Your task to perform on an android device: open app "Mercado Libre" (install if not already installed) Image 0: 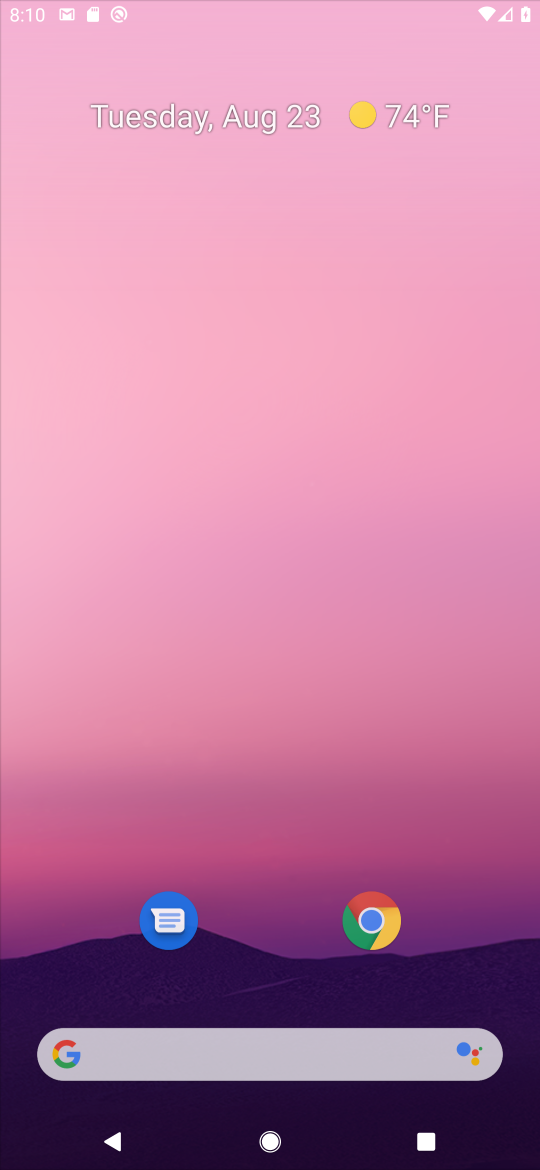
Step 0: drag from (303, 43) to (391, 6)
Your task to perform on an android device: open app "Mercado Libre" (install if not already installed) Image 1: 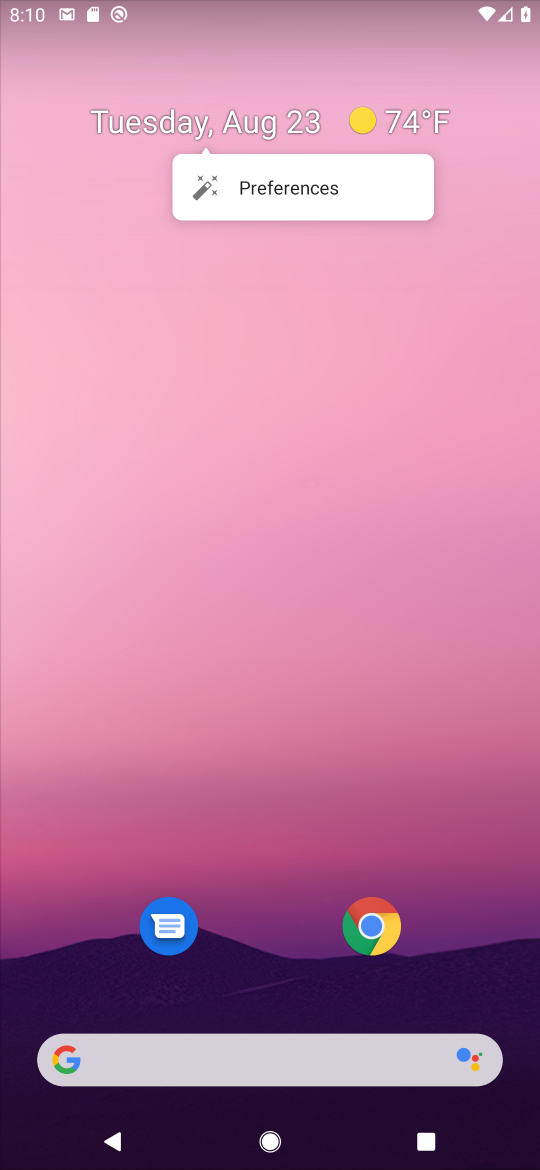
Step 1: drag from (257, 953) to (397, 10)
Your task to perform on an android device: open app "Mercado Libre" (install if not already installed) Image 2: 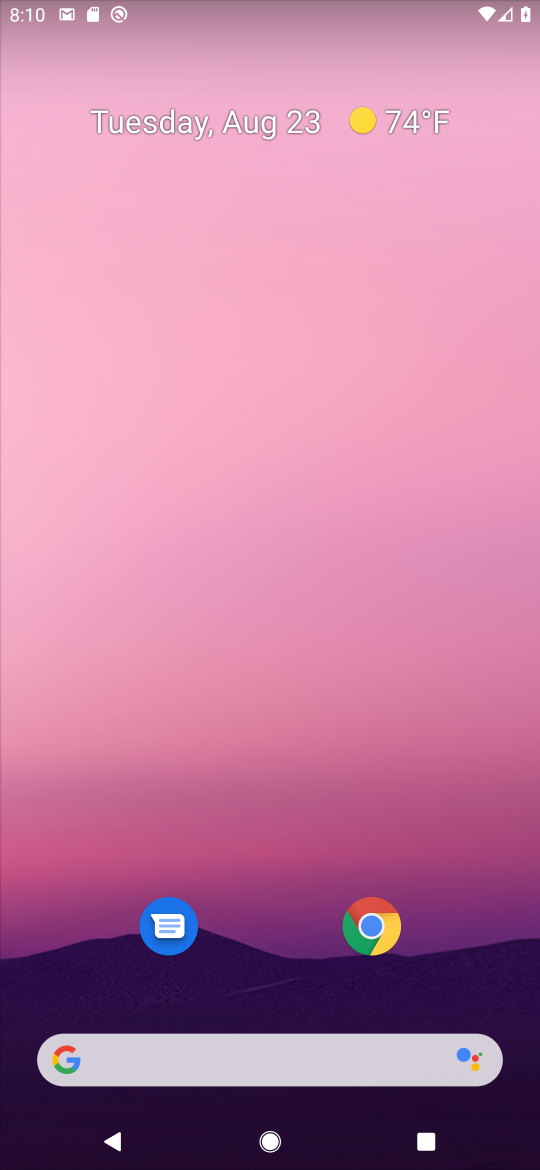
Step 2: drag from (286, 970) to (337, 33)
Your task to perform on an android device: open app "Mercado Libre" (install if not already installed) Image 3: 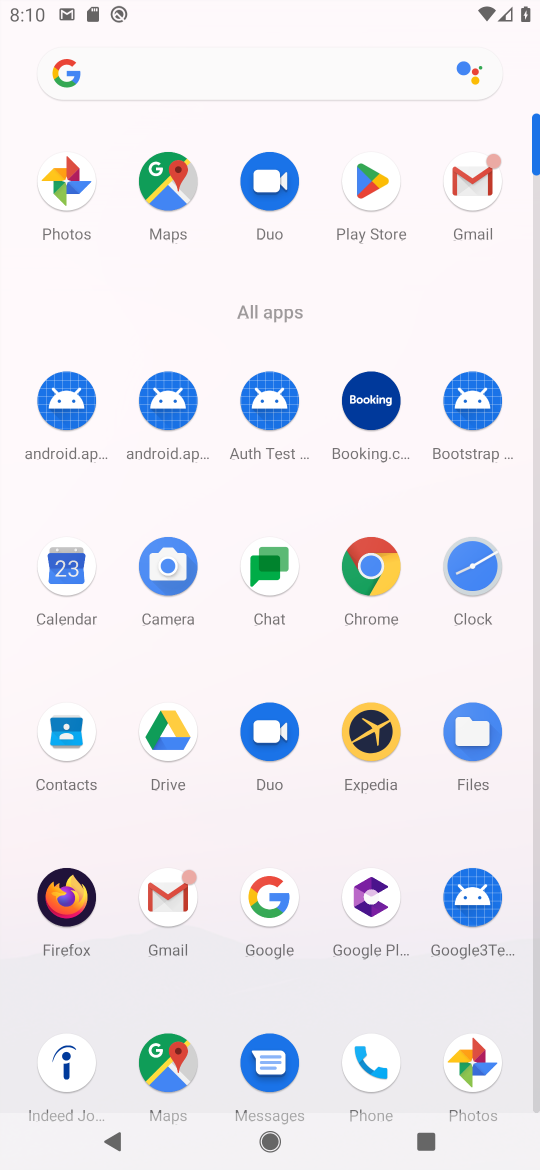
Step 3: click (362, 197)
Your task to perform on an android device: open app "Mercado Libre" (install if not already installed) Image 4: 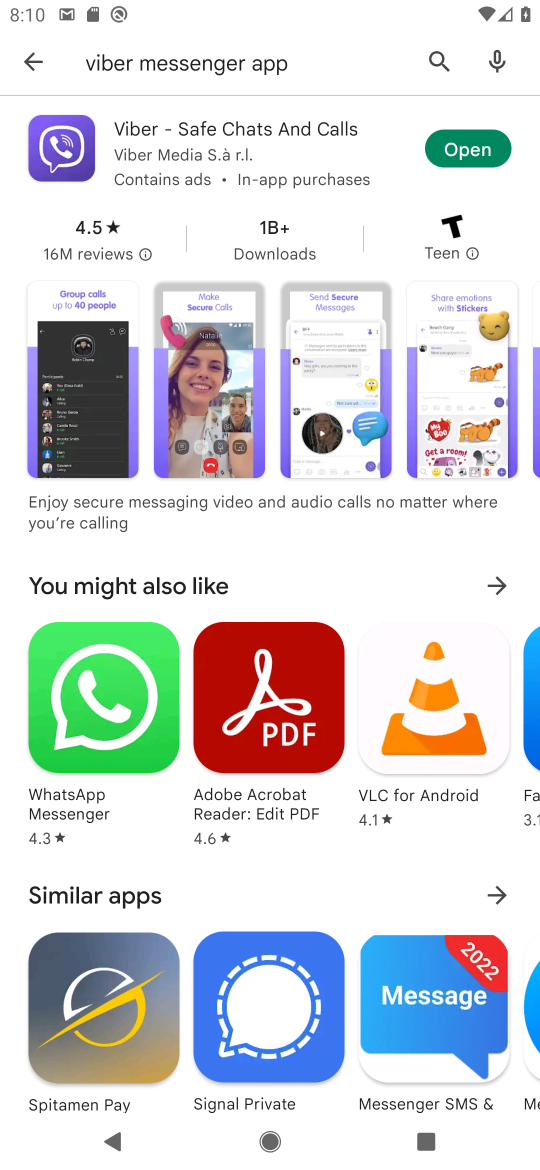
Step 4: click (296, 69)
Your task to perform on an android device: open app "Mercado Libre" (install if not already installed) Image 5: 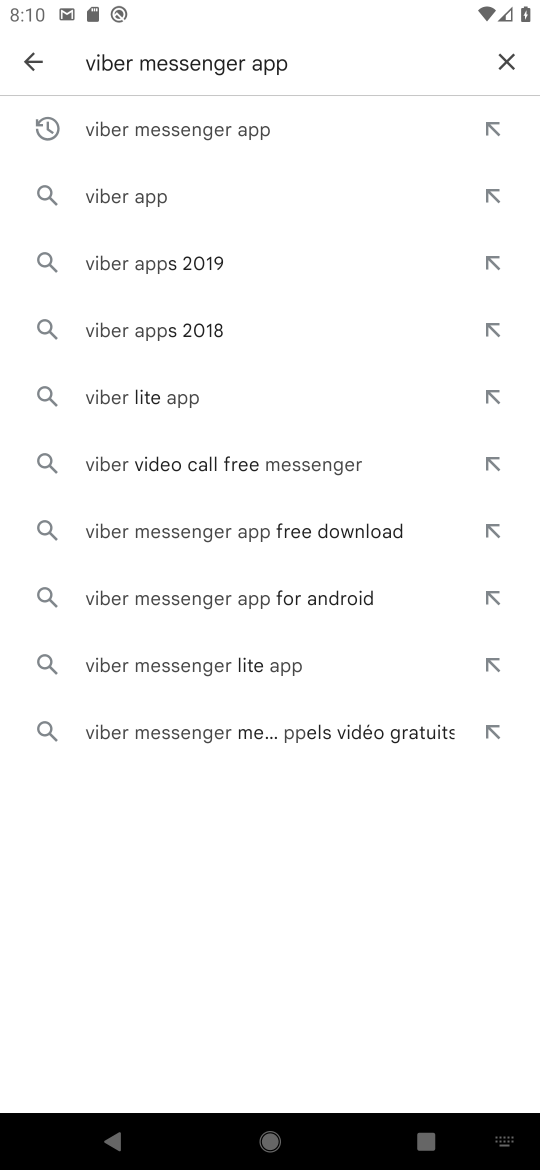
Step 5: click (506, 57)
Your task to perform on an android device: open app "Mercado Libre" (install if not already installed) Image 6: 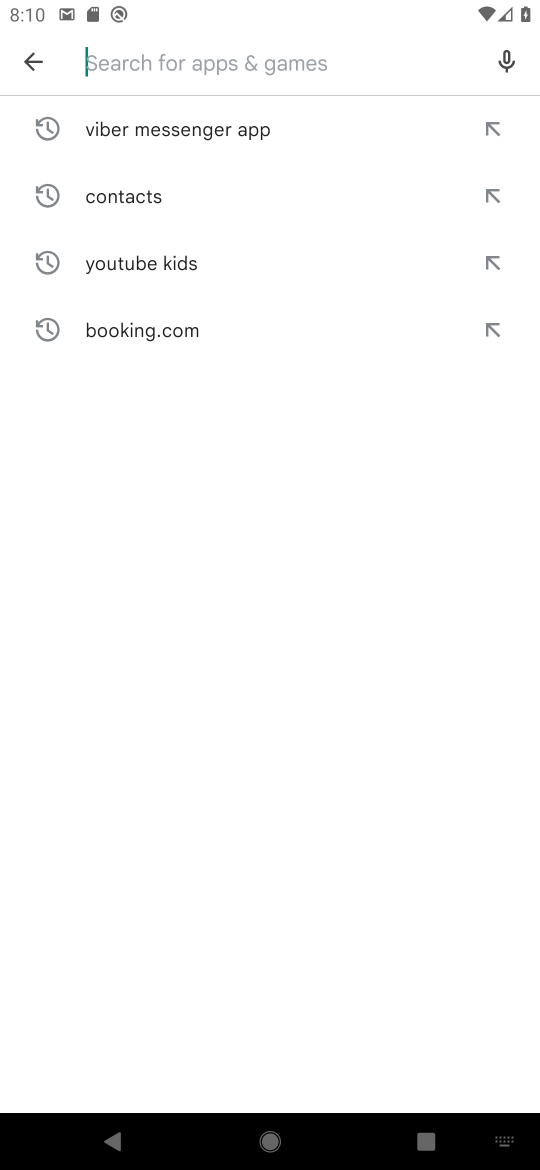
Step 6: type "mercado libre"
Your task to perform on an android device: open app "Mercado Libre" (install if not already installed) Image 7: 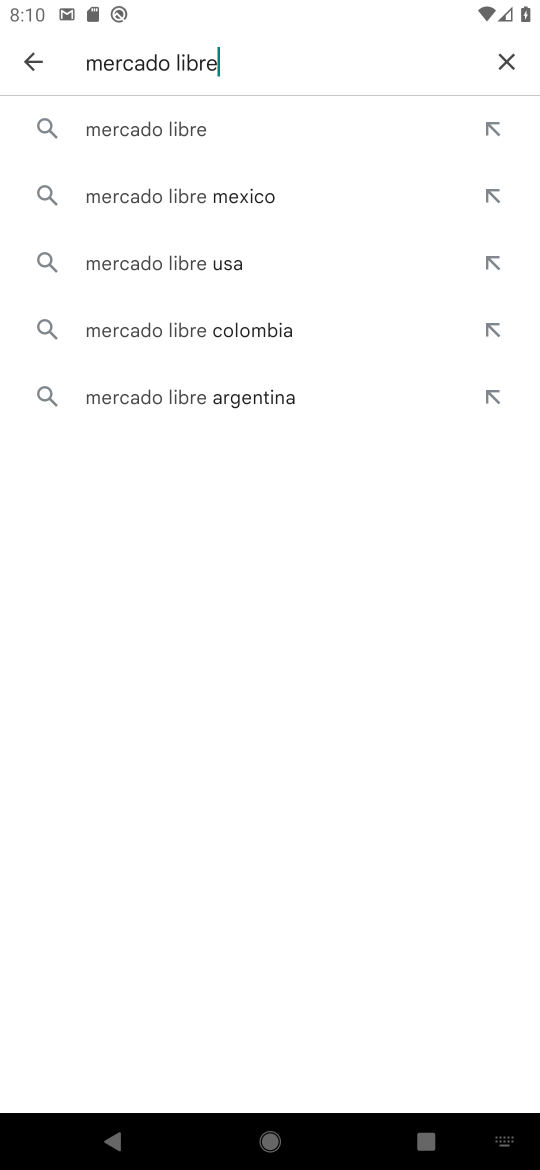
Step 7: click (174, 118)
Your task to perform on an android device: open app "Mercado Libre" (install if not already installed) Image 8: 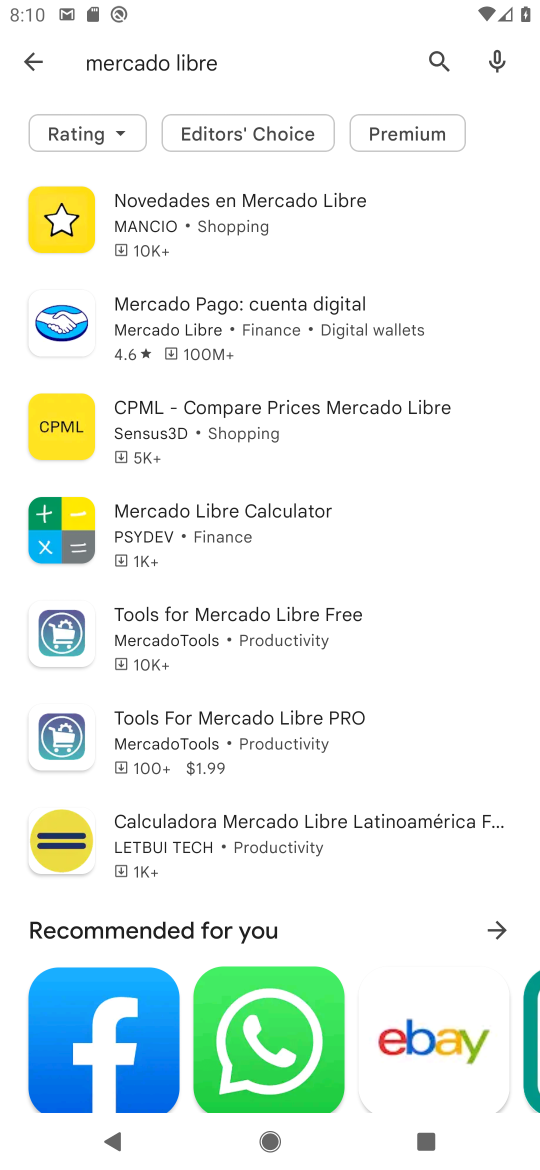
Step 8: task complete